Your task to perform on an android device: Open calendar and show me the second week of next month Image 0: 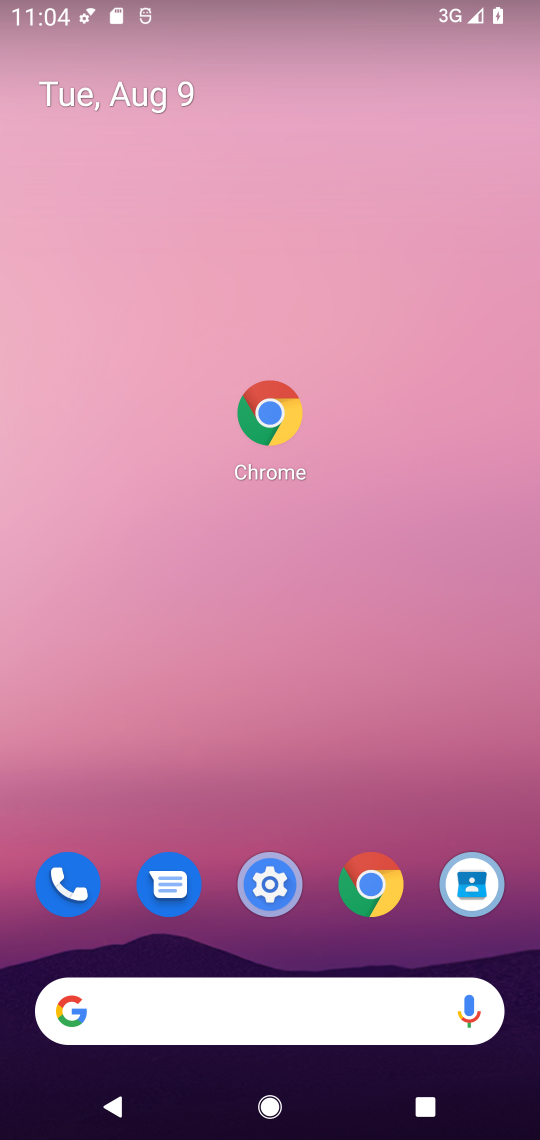
Step 0: drag from (374, 959) to (297, 390)
Your task to perform on an android device: Open calendar and show me the second week of next month Image 1: 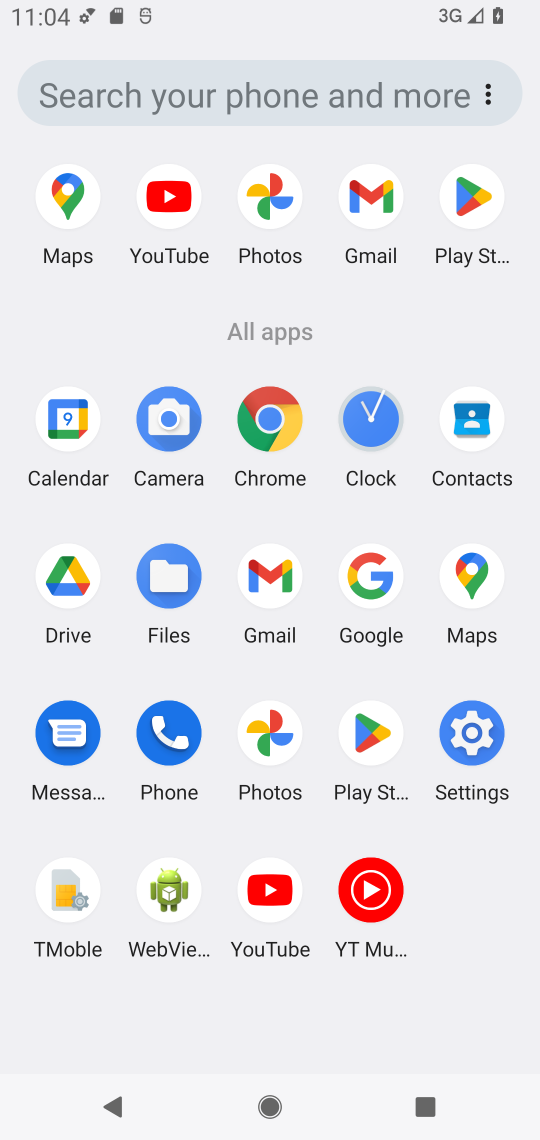
Step 1: click (61, 437)
Your task to perform on an android device: Open calendar and show me the second week of next month Image 2: 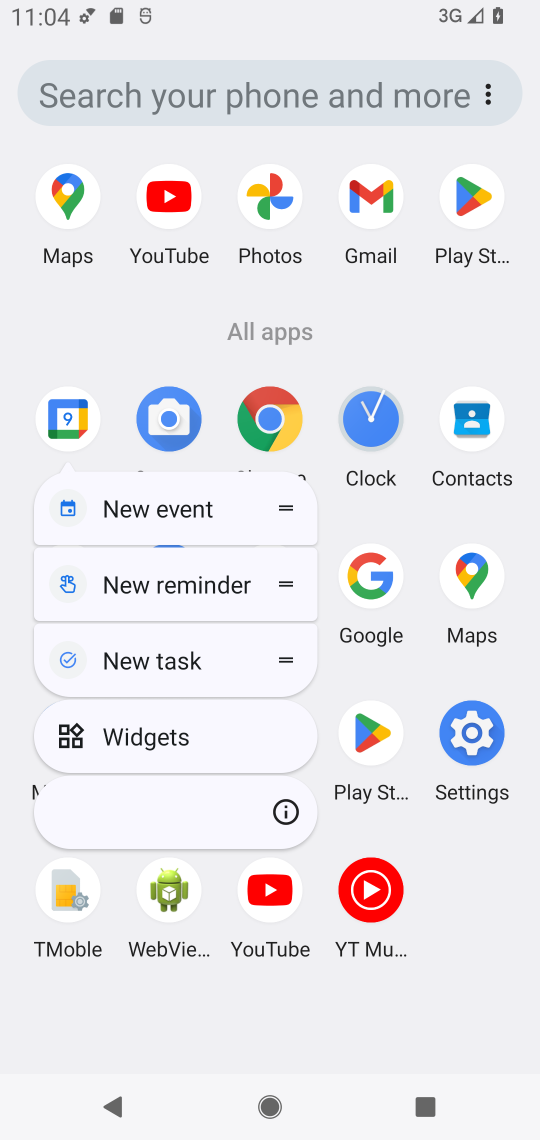
Step 2: click (73, 441)
Your task to perform on an android device: Open calendar and show me the second week of next month Image 3: 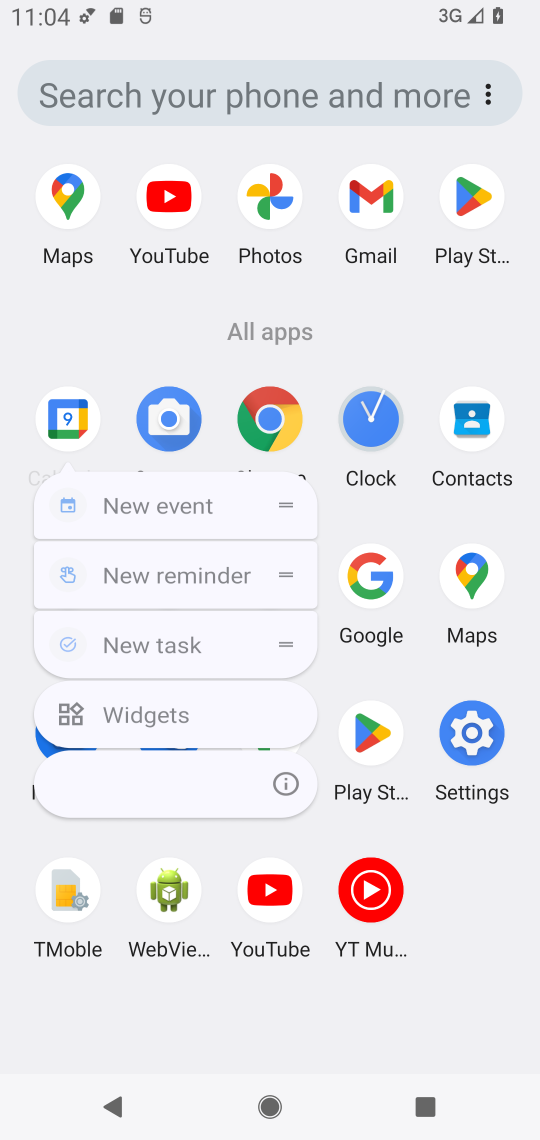
Step 3: click (40, 404)
Your task to perform on an android device: Open calendar and show me the second week of next month Image 4: 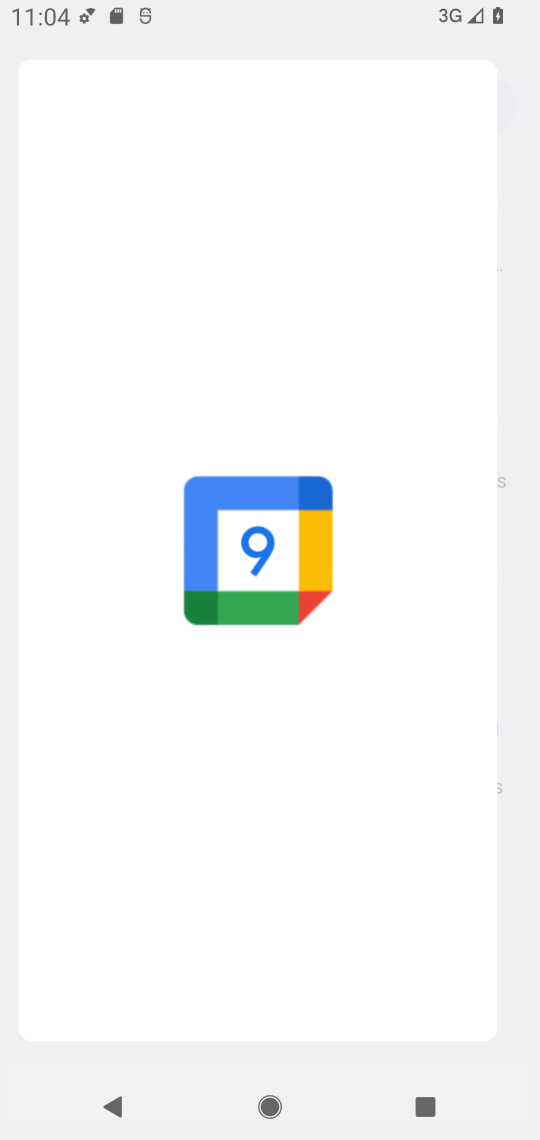
Step 4: click (67, 424)
Your task to perform on an android device: Open calendar and show me the second week of next month Image 5: 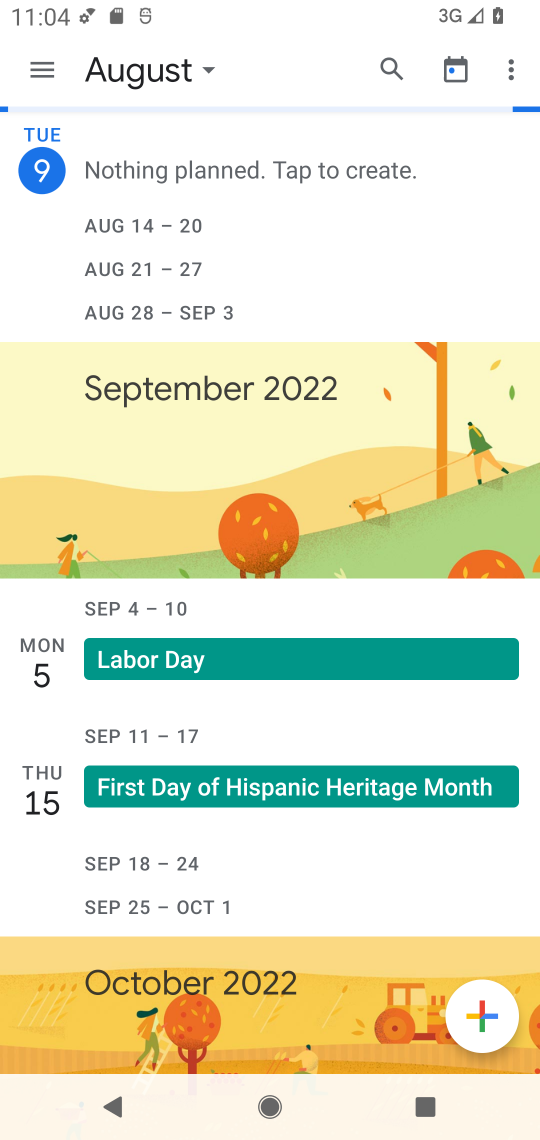
Step 5: click (197, 59)
Your task to perform on an android device: Open calendar and show me the second week of next month Image 6: 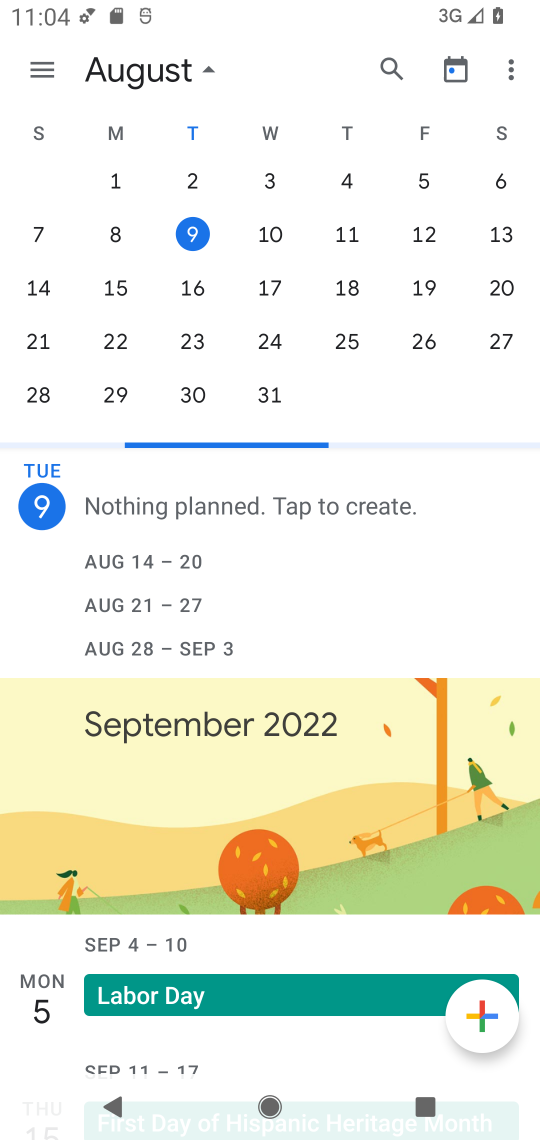
Step 6: drag from (428, 212) to (43, 277)
Your task to perform on an android device: Open calendar and show me the second week of next month Image 7: 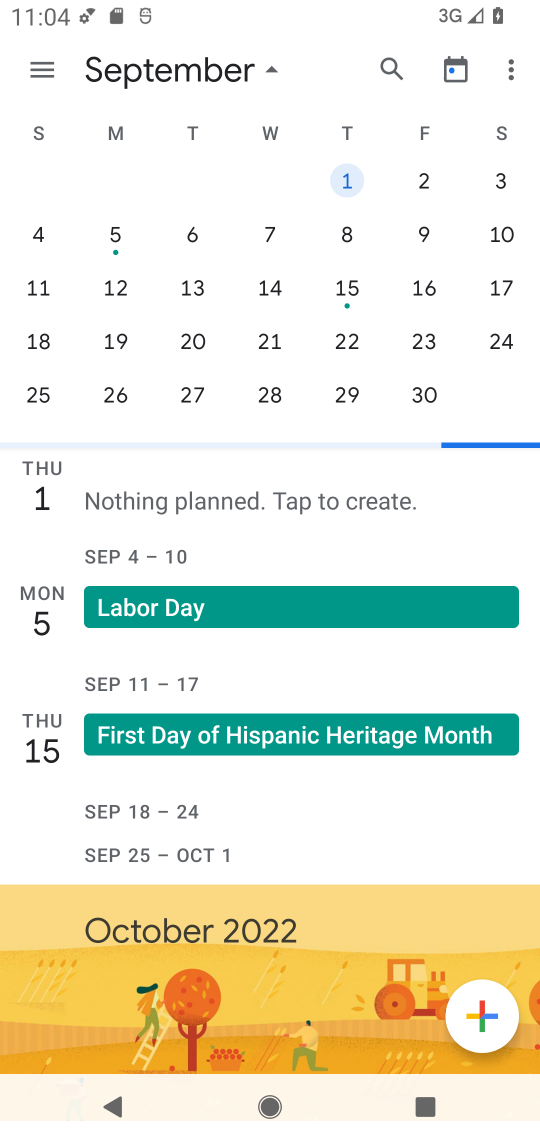
Step 7: click (345, 239)
Your task to perform on an android device: Open calendar and show me the second week of next month Image 8: 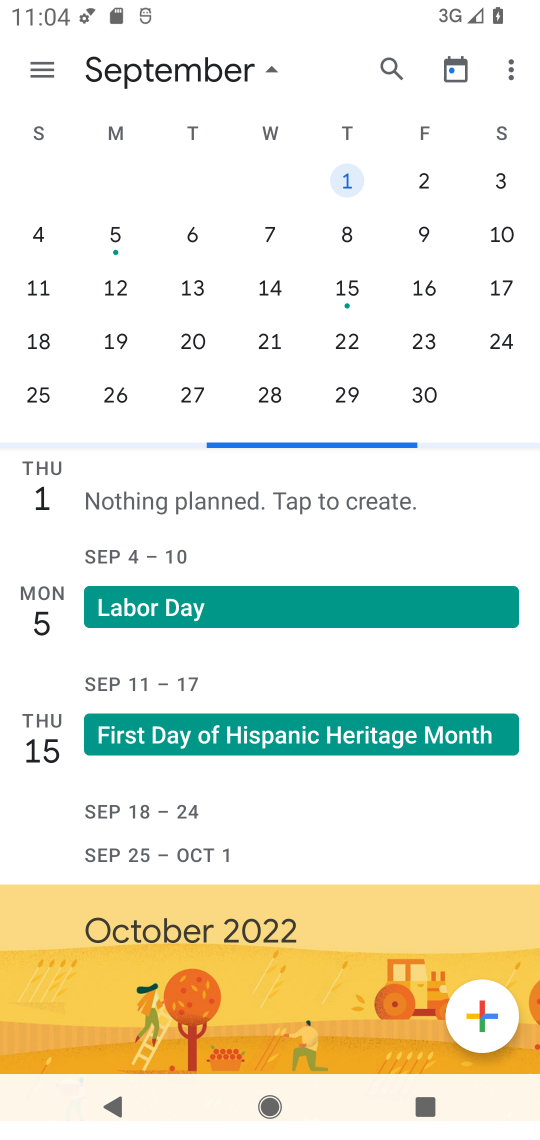
Step 8: click (341, 229)
Your task to perform on an android device: Open calendar and show me the second week of next month Image 9: 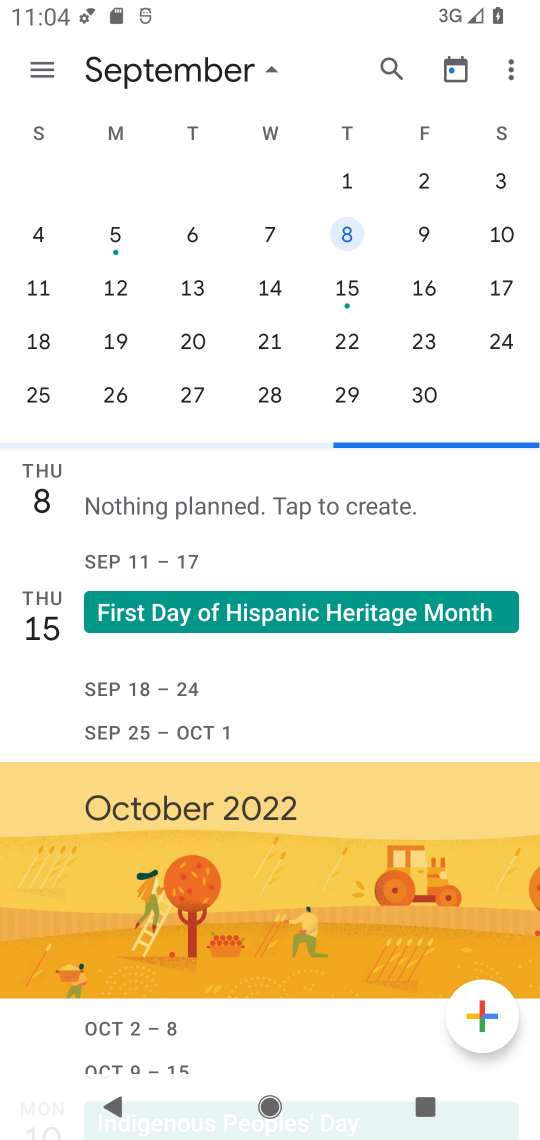
Step 9: task complete